Your task to perform on an android device: Open Chrome and go to settings Image 0: 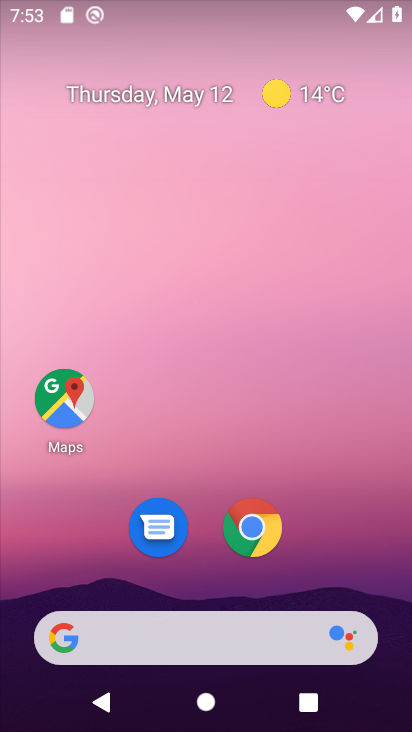
Step 0: click (264, 525)
Your task to perform on an android device: Open Chrome and go to settings Image 1: 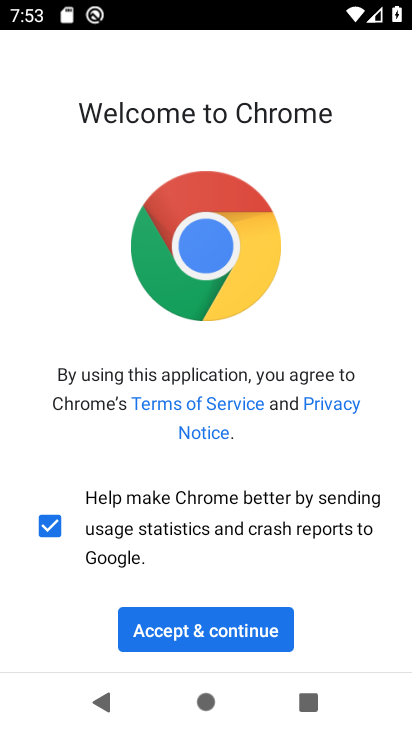
Step 1: click (237, 628)
Your task to perform on an android device: Open Chrome and go to settings Image 2: 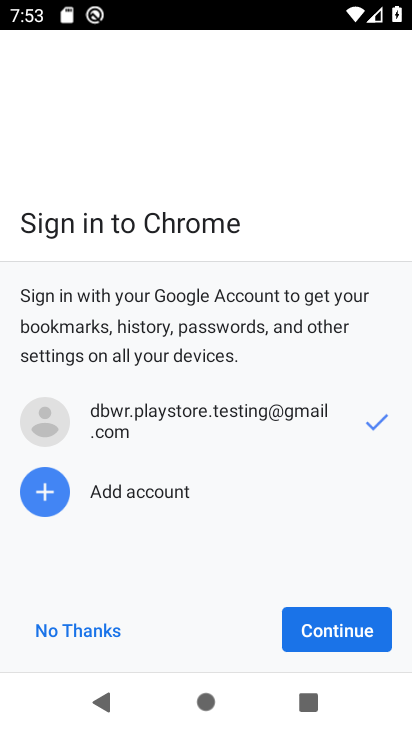
Step 2: click (346, 623)
Your task to perform on an android device: Open Chrome and go to settings Image 3: 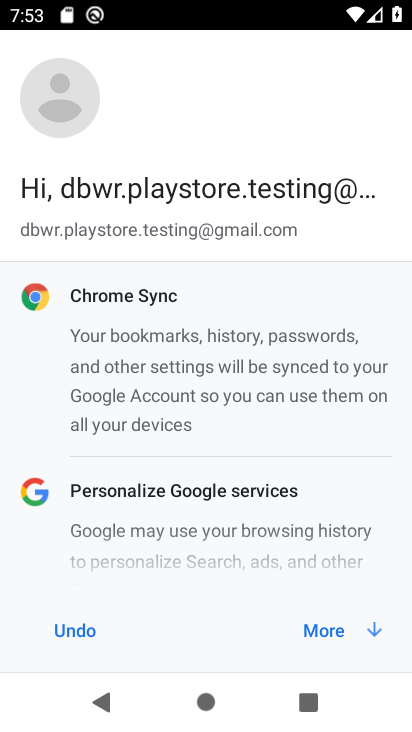
Step 3: click (346, 623)
Your task to perform on an android device: Open Chrome and go to settings Image 4: 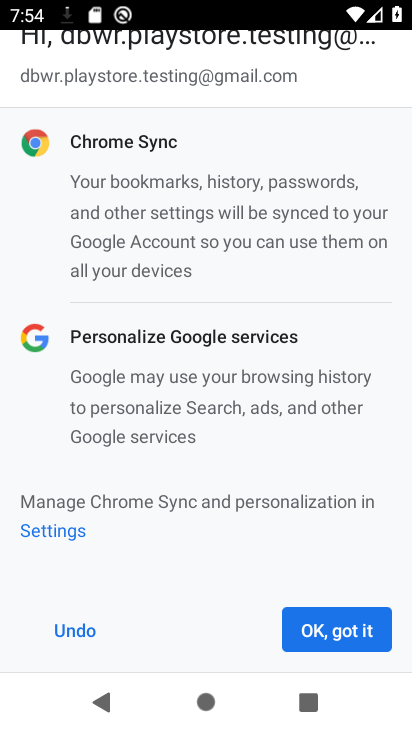
Step 4: click (350, 630)
Your task to perform on an android device: Open Chrome and go to settings Image 5: 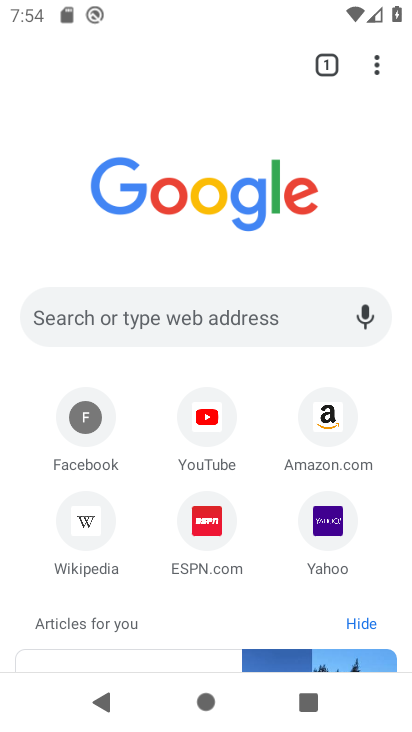
Step 5: task complete